Your task to perform on an android device: allow cookies in the chrome app Image 0: 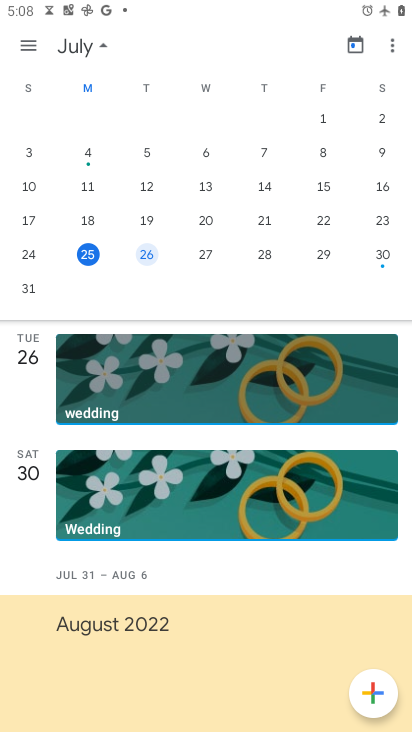
Step 0: press home button
Your task to perform on an android device: allow cookies in the chrome app Image 1: 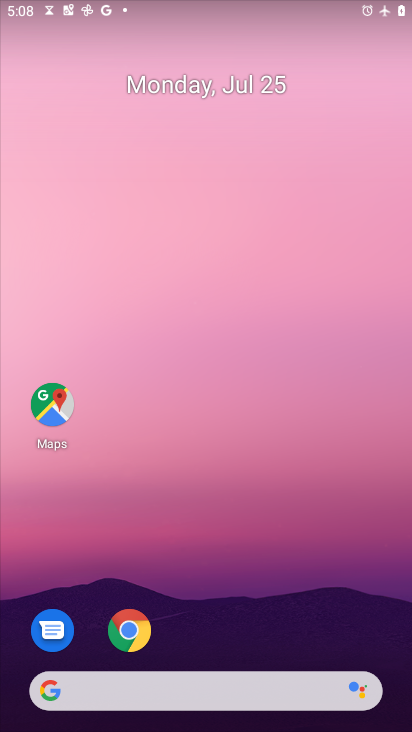
Step 1: click (129, 631)
Your task to perform on an android device: allow cookies in the chrome app Image 2: 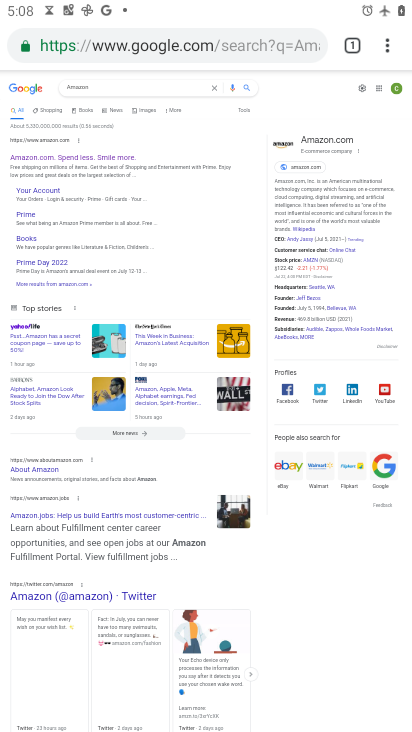
Step 2: click (388, 46)
Your task to perform on an android device: allow cookies in the chrome app Image 3: 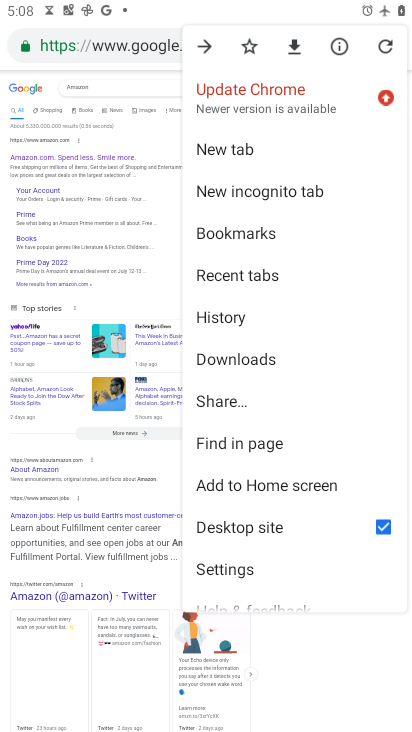
Step 3: click (228, 568)
Your task to perform on an android device: allow cookies in the chrome app Image 4: 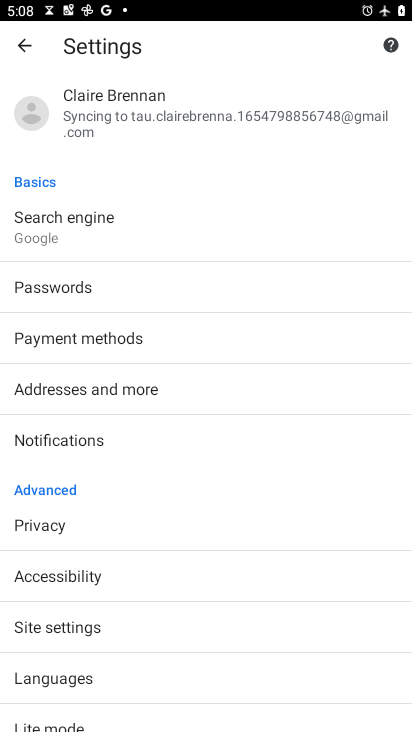
Step 4: drag from (133, 580) to (231, 355)
Your task to perform on an android device: allow cookies in the chrome app Image 5: 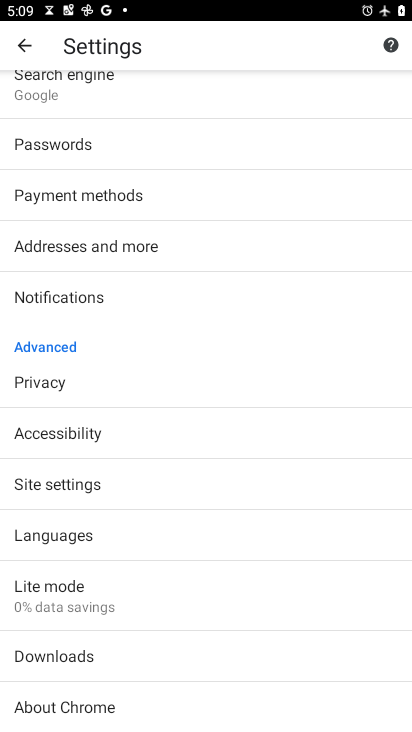
Step 5: click (95, 483)
Your task to perform on an android device: allow cookies in the chrome app Image 6: 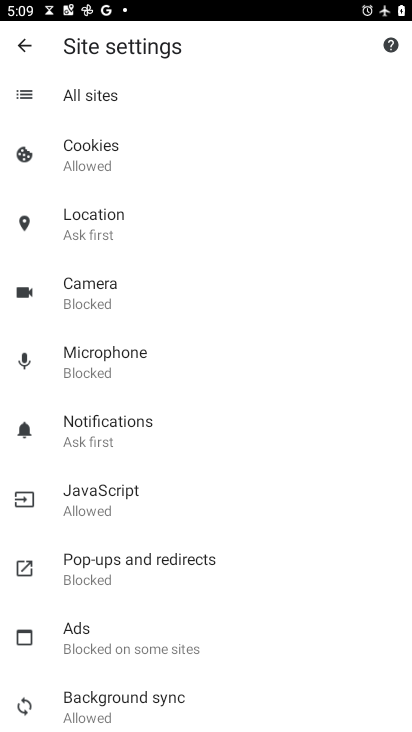
Step 6: click (103, 155)
Your task to perform on an android device: allow cookies in the chrome app Image 7: 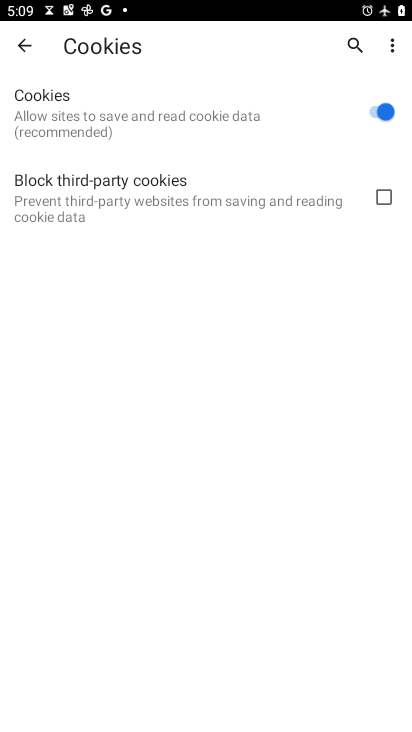
Step 7: click (386, 193)
Your task to perform on an android device: allow cookies in the chrome app Image 8: 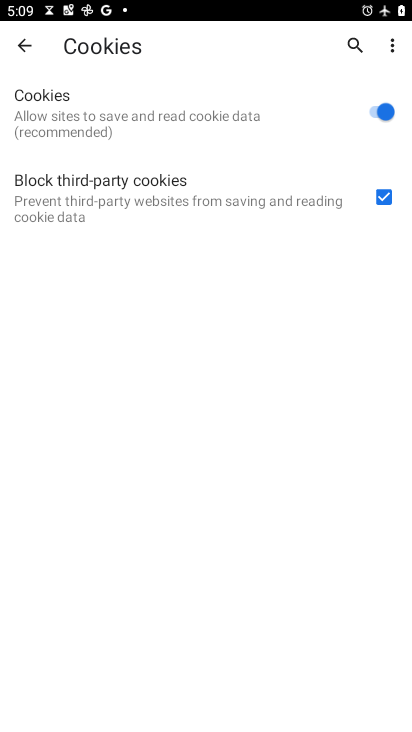
Step 8: task complete